Your task to perform on an android device: Go to network settings Image 0: 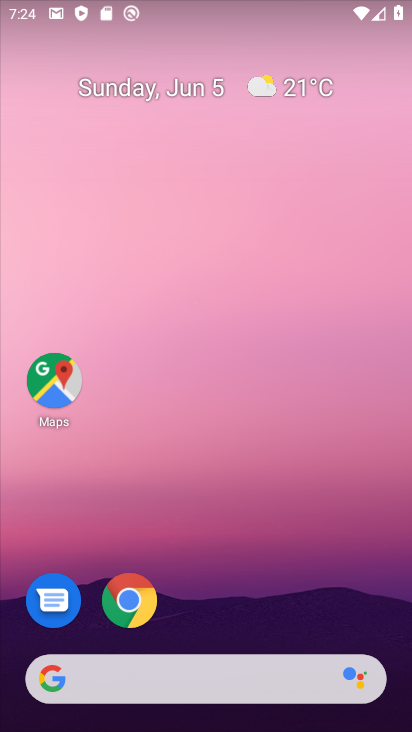
Step 0: drag from (135, 672) to (175, 14)
Your task to perform on an android device: Go to network settings Image 1: 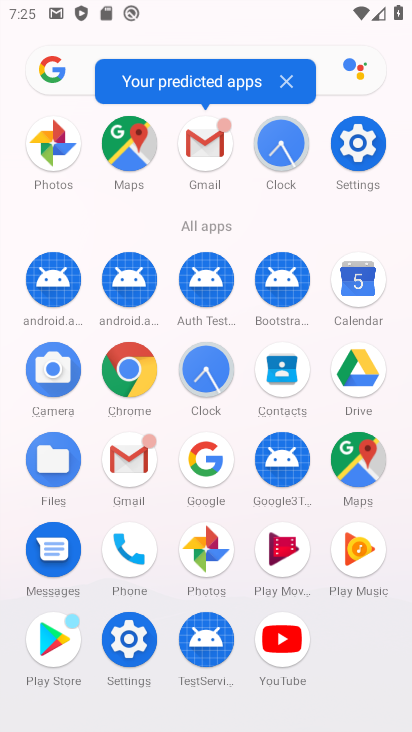
Step 1: click (356, 174)
Your task to perform on an android device: Go to network settings Image 2: 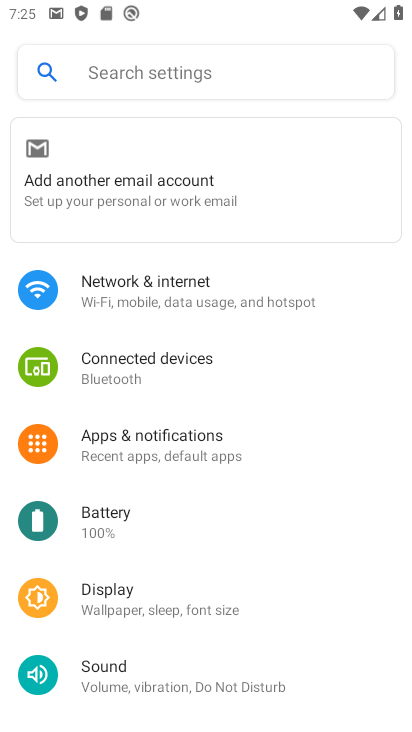
Step 2: click (281, 305)
Your task to perform on an android device: Go to network settings Image 3: 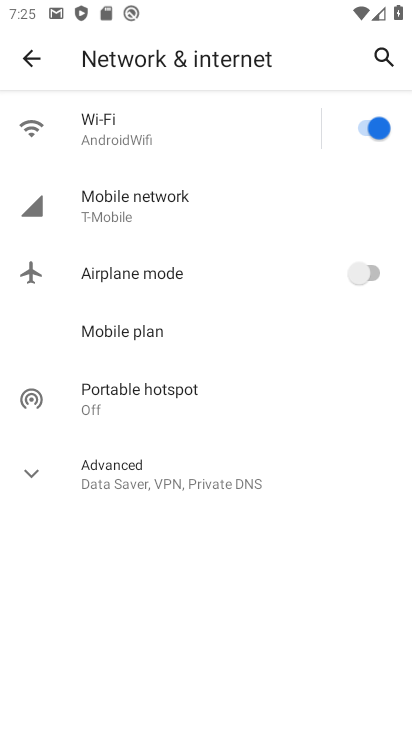
Step 3: click (132, 226)
Your task to perform on an android device: Go to network settings Image 4: 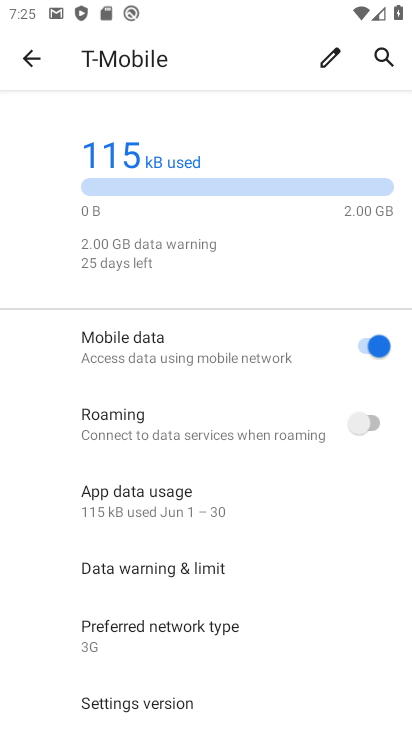
Step 4: drag from (256, 673) to (299, 237)
Your task to perform on an android device: Go to network settings Image 5: 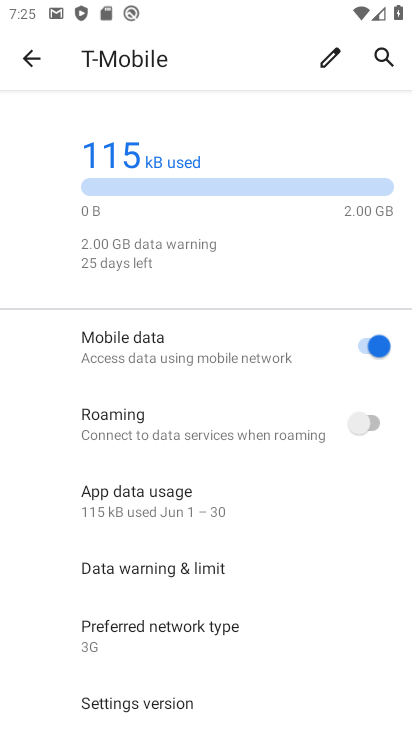
Step 5: drag from (211, 684) to (295, 358)
Your task to perform on an android device: Go to network settings Image 6: 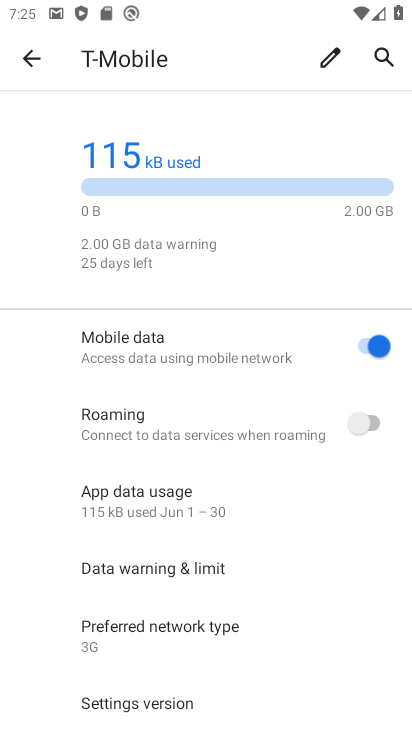
Step 6: drag from (336, 679) to (334, 175)
Your task to perform on an android device: Go to network settings Image 7: 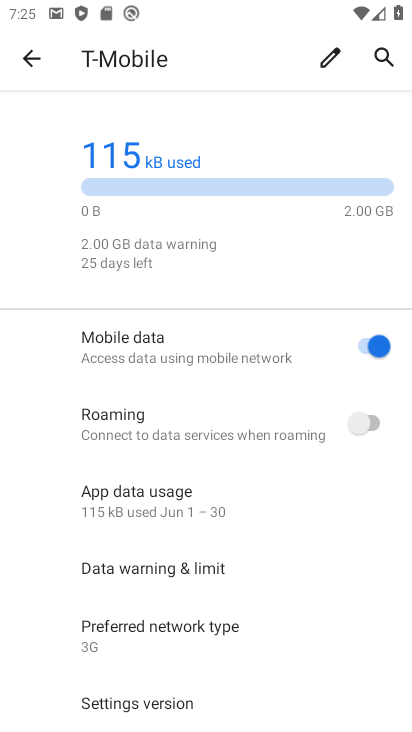
Step 7: drag from (240, 698) to (279, 248)
Your task to perform on an android device: Go to network settings Image 8: 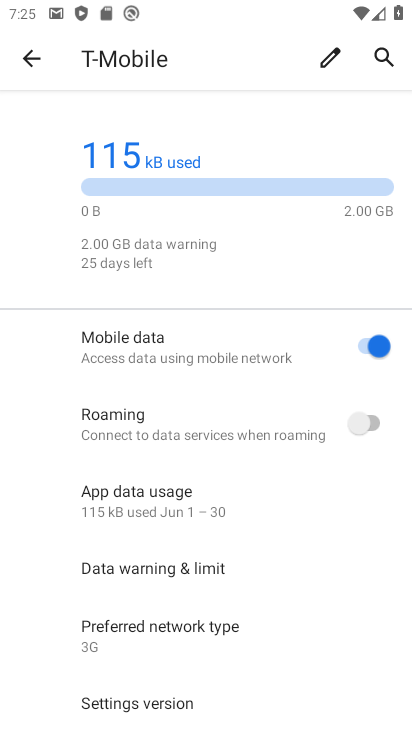
Step 8: click (38, 66)
Your task to perform on an android device: Go to network settings Image 9: 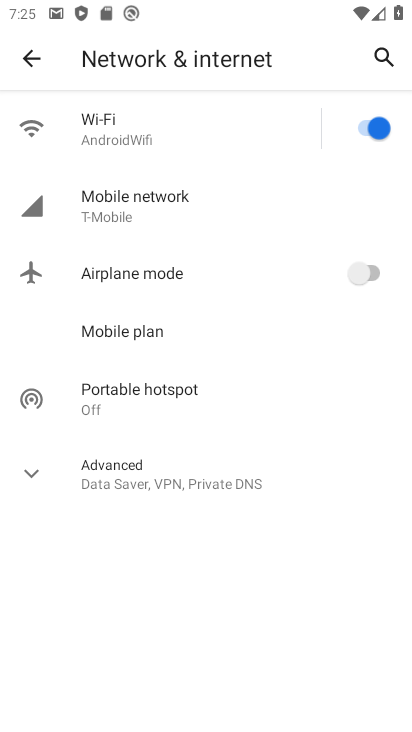
Step 9: click (131, 225)
Your task to perform on an android device: Go to network settings Image 10: 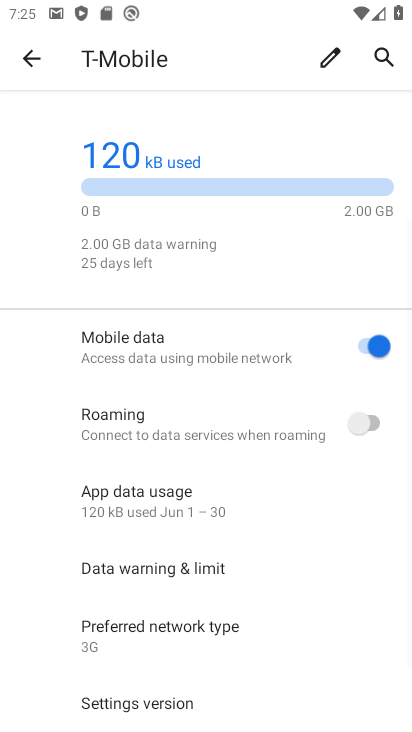
Step 10: drag from (24, 682) to (95, 238)
Your task to perform on an android device: Go to network settings Image 11: 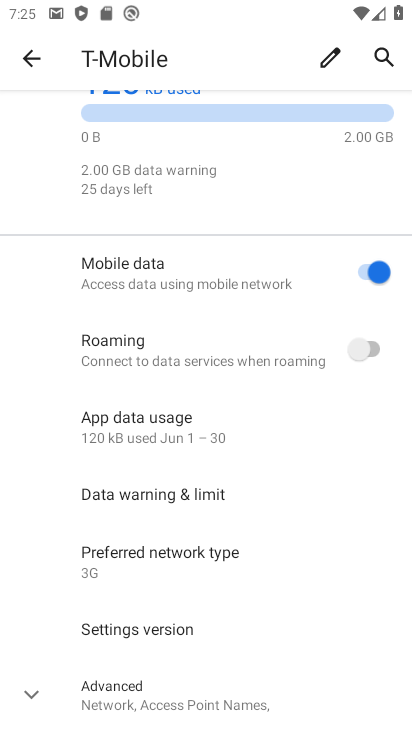
Step 11: click (191, 706)
Your task to perform on an android device: Go to network settings Image 12: 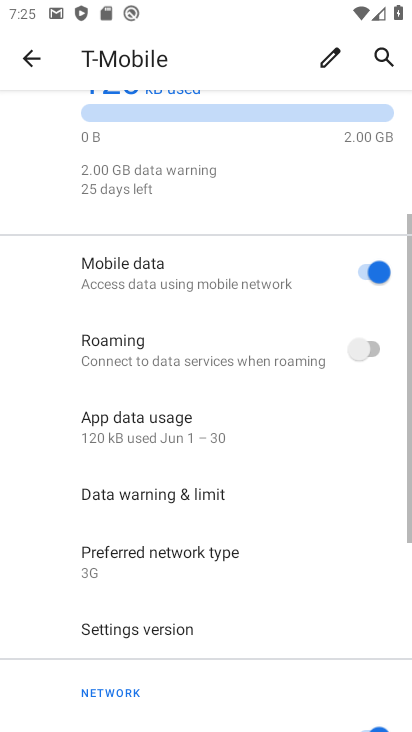
Step 12: task complete